Your task to perform on an android device: Show me recent news Image 0: 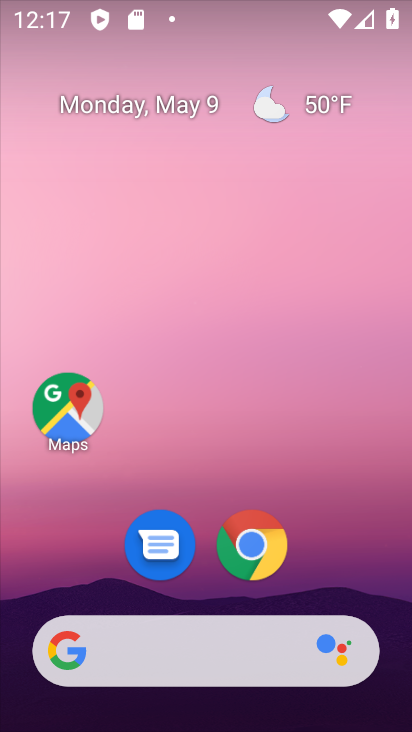
Step 0: drag from (209, 581) to (171, 224)
Your task to perform on an android device: Show me recent news Image 1: 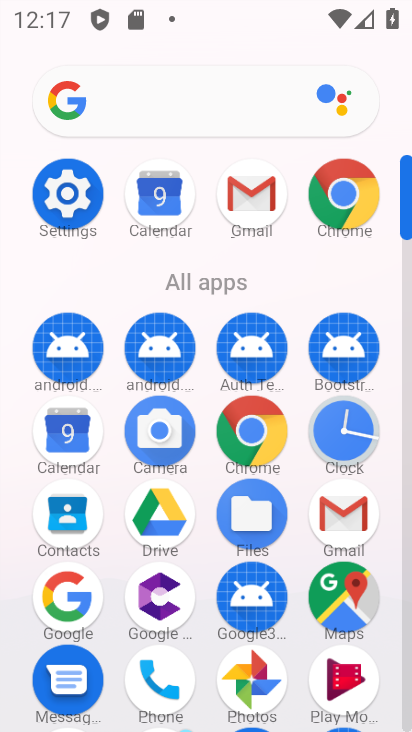
Step 1: click (72, 603)
Your task to perform on an android device: Show me recent news Image 2: 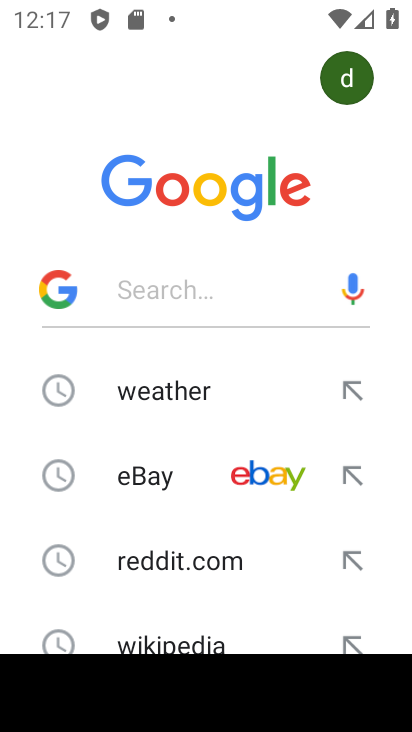
Step 2: drag from (213, 574) to (224, 266)
Your task to perform on an android device: Show me recent news Image 3: 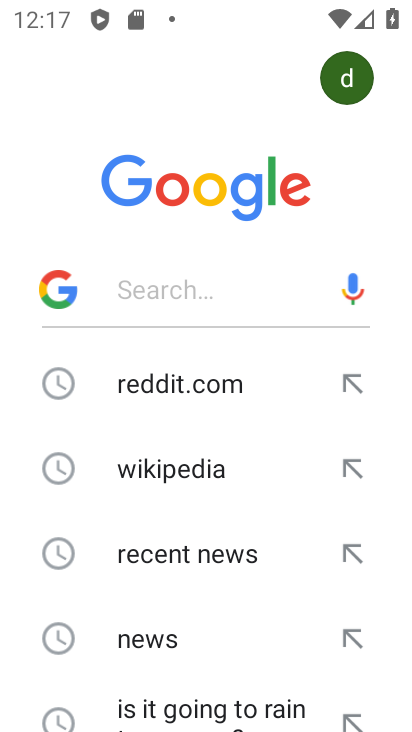
Step 3: click (203, 579)
Your task to perform on an android device: Show me recent news Image 4: 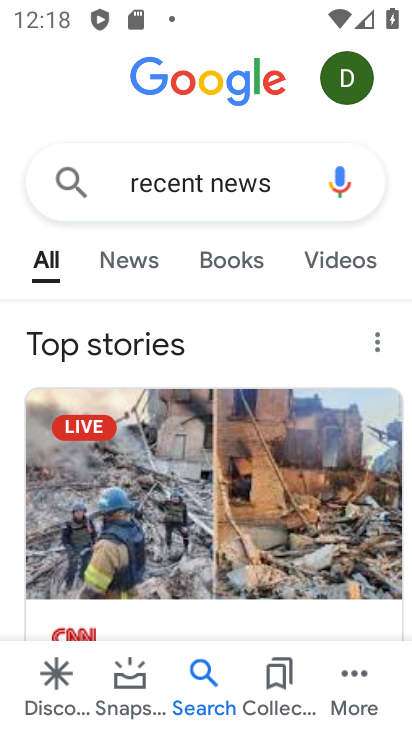
Step 4: click (121, 261)
Your task to perform on an android device: Show me recent news Image 5: 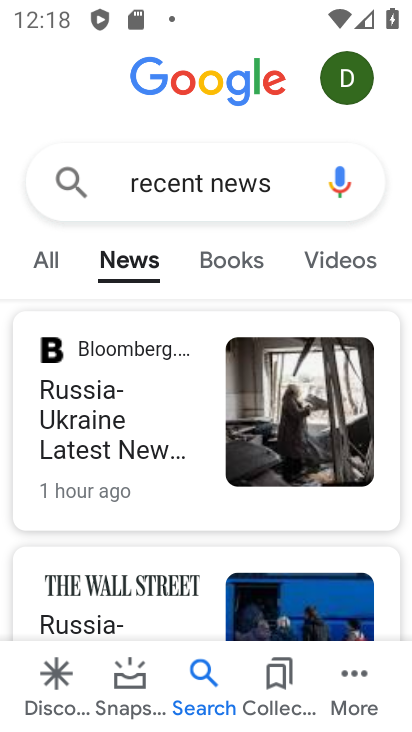
Step 5: task complete